Your task to perform on an android device: Open accessibility settings Image 0: 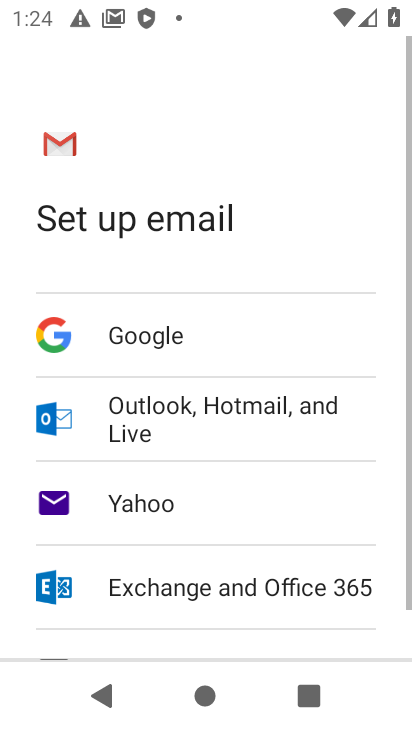
Step 0: press home button
Your task to perform on an android device: Open accessibility settings Image 1: 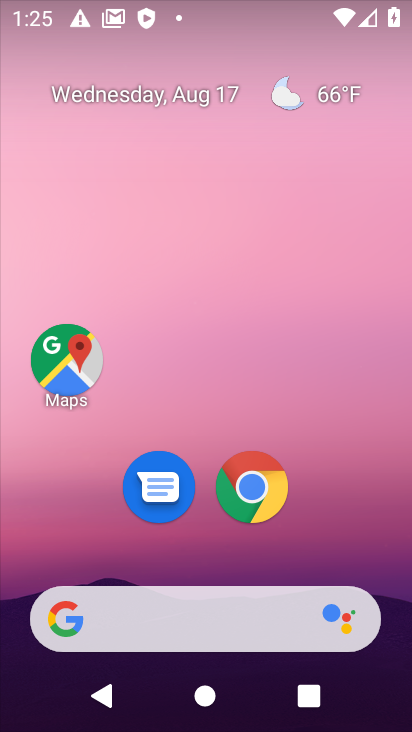
Step 1: drag from (196, 509) to (228, 157)
Your task to perform on an android device: Open accessibility settings Image 2: 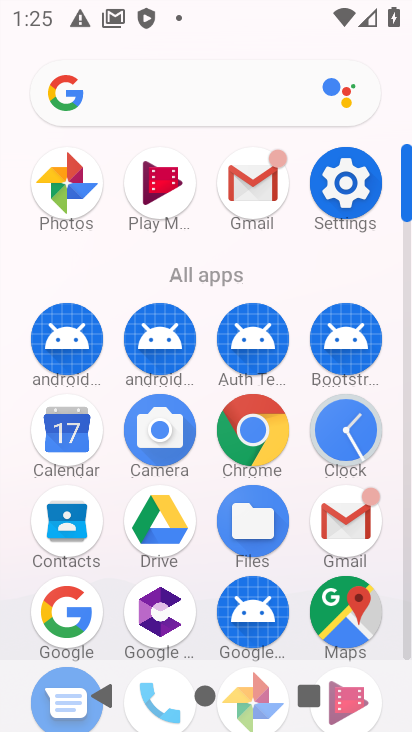
Step 2: click (333, 190)
Your task to perform on an android device: Open accessibility settings Image 3: 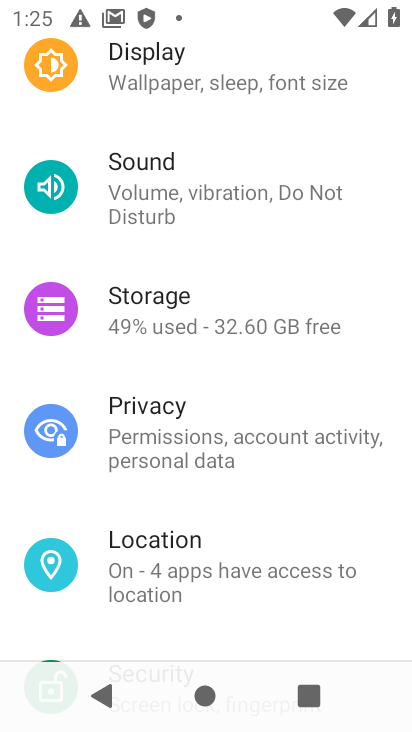
Step 3: drag from (323, 619) to (346, 145)
Your task to perform on an android device: Open accessibility settings Image 4: 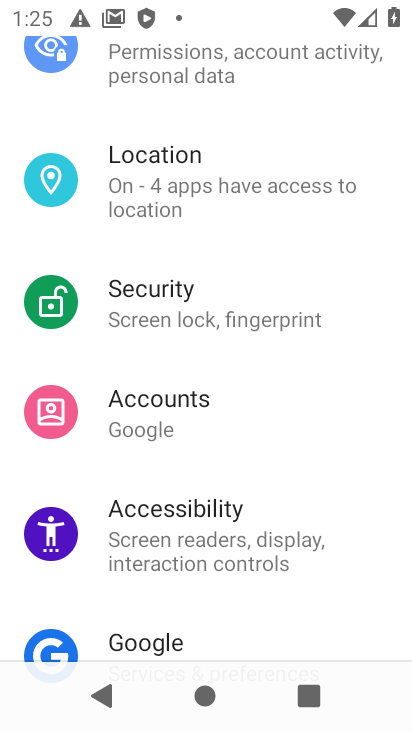
Step 4: click (177, 529)
Your task to perform on an android device: Open accessibility settings Image 5: 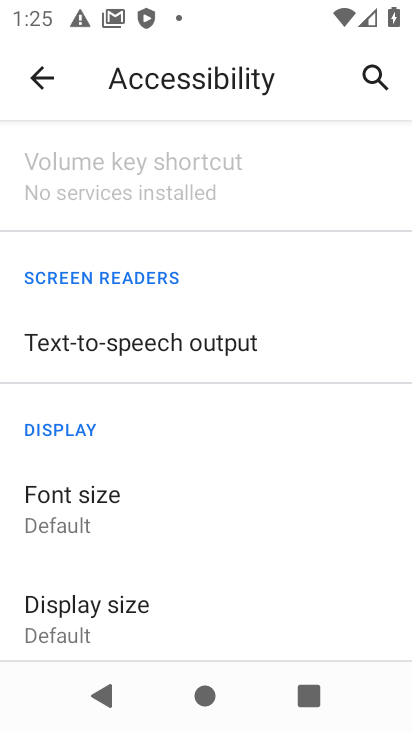
Step 5: task complete